Your task to perform on an android device: turn notification dots off Image 0: 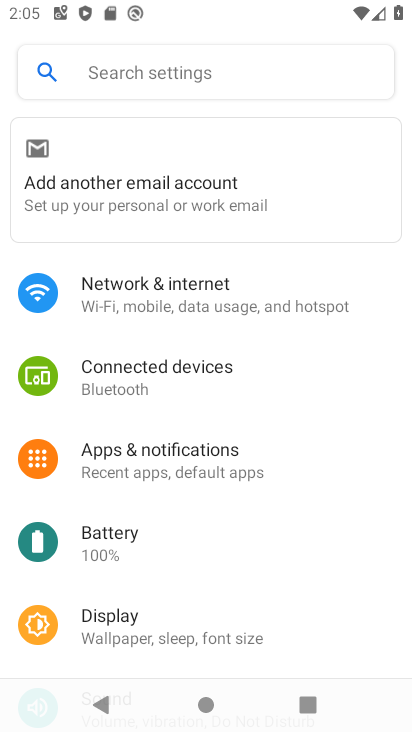
Step 0: press home button
Your task to perform on an android device: turn notification dots off Image 1: 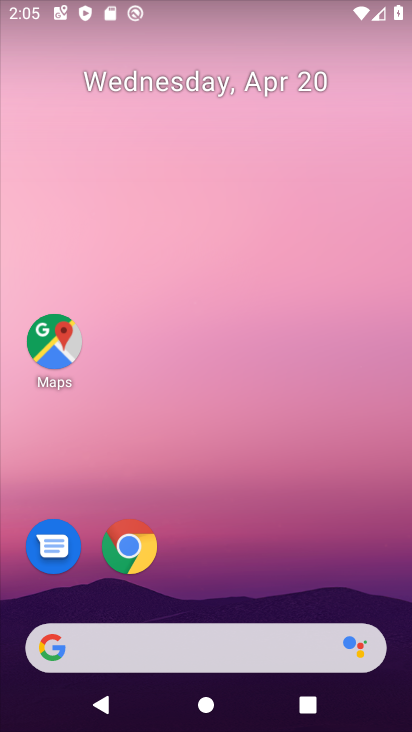
Step 1: drag from (265, 660) to (282, 57)
Your task to perform on an android device: turn notification dots off Image 2: 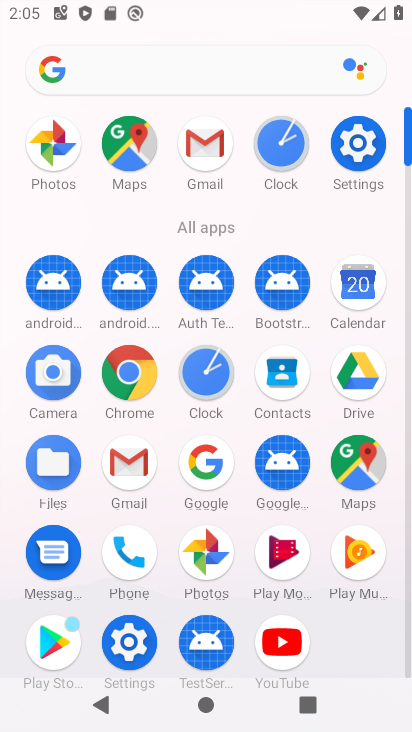
Step 2: click (349, 165)
Your task to perform on an android device: turn notification dots off Image 3: 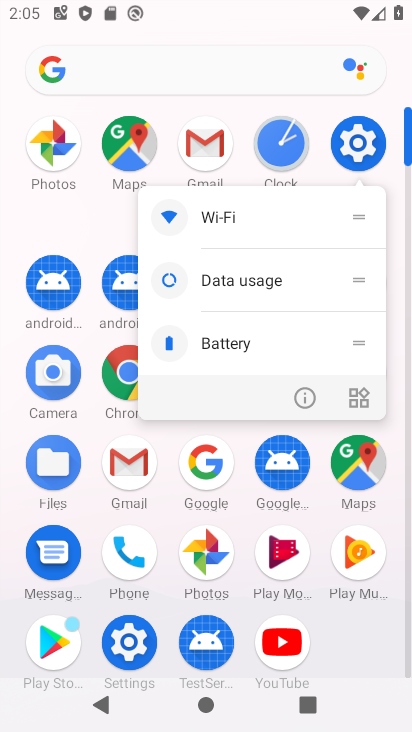
Step 3: click (354, 122)
Your task to perform on an android device: turn notification dots off Image 4: 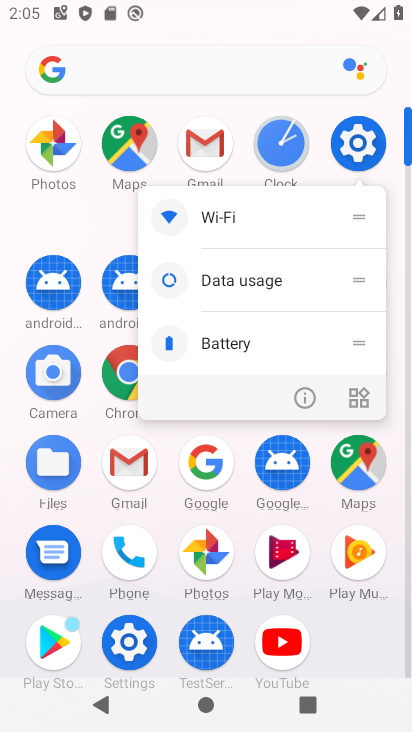
Step 4: click (353, 148)
Your task to perform on an android device: turn notification dots off Image 5: 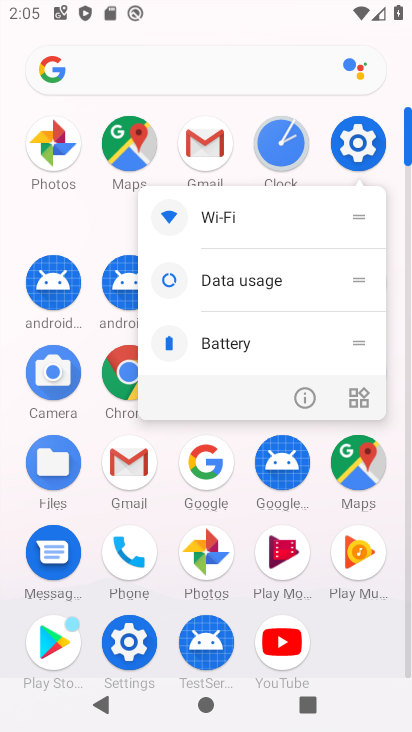
Step 5: click (353, 148)
Your task to perform on an android device: turn notification dots off Image 6: 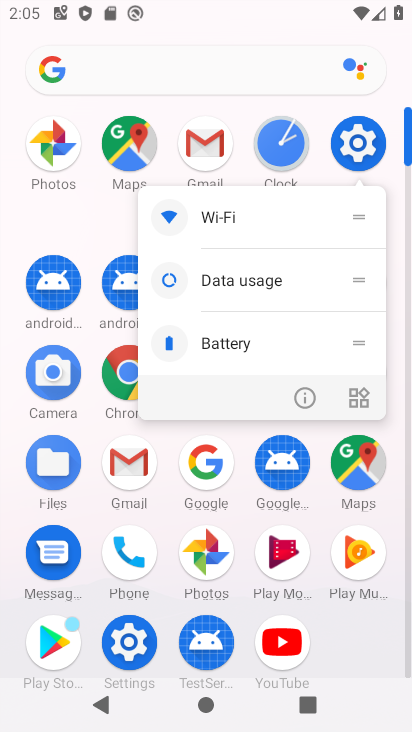
Step 6: click (353, 149)
Your task to perform on an android device: turn notification dots off Image 7: 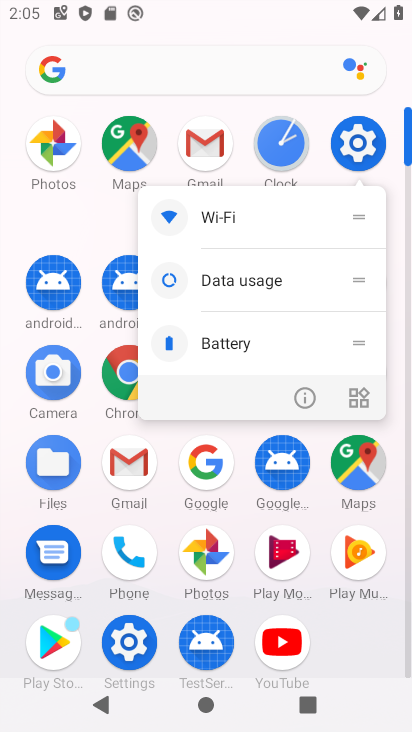
Step 7: click (353, 149)
Your task to perform on an android device: turn notification dots off Image 8: 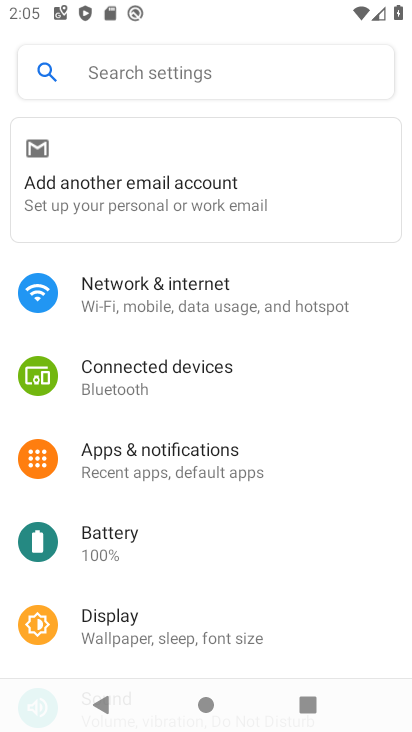
Step 8: drag from (332, 157) to (94, 221)
Your task to perform on an android device: turn notification dots off Image 9: 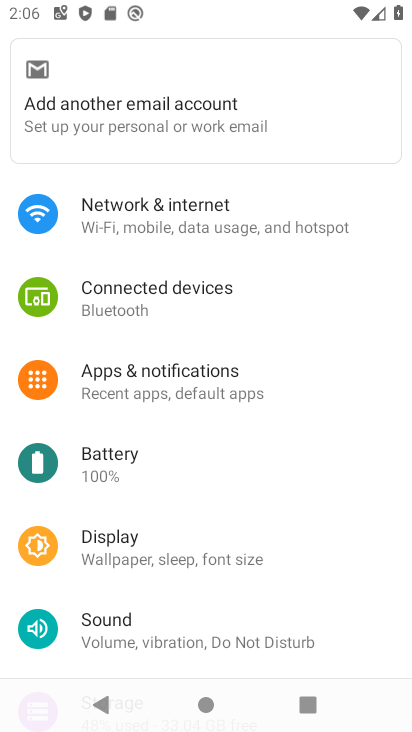
Step 9: drag from (163, 231) to (142, 355)
Your task to perform on an android device: turn notification dots off Image 10: 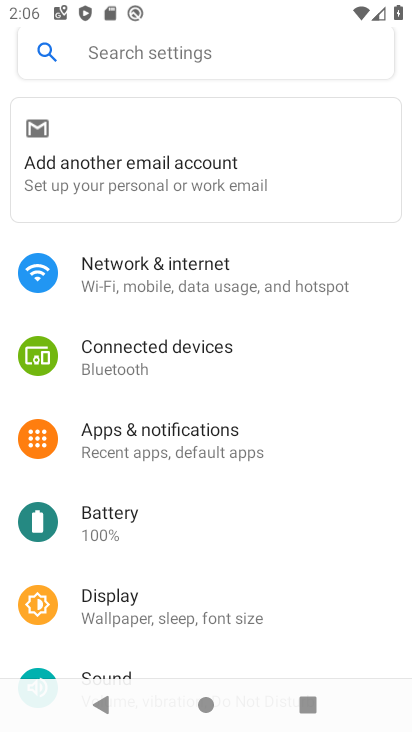
Step 10: click (139, 51)
Your task to perform on an android device: turn notification dots off Image 11: 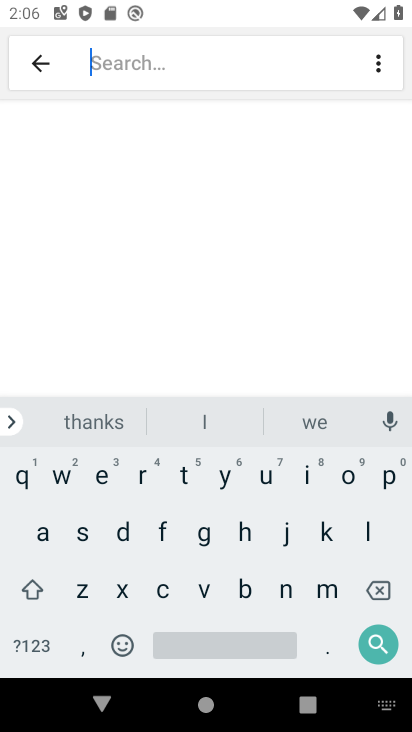
Step 11: click (117, 531)
Your task to perform on an android device: turn notification dots off Image 12: 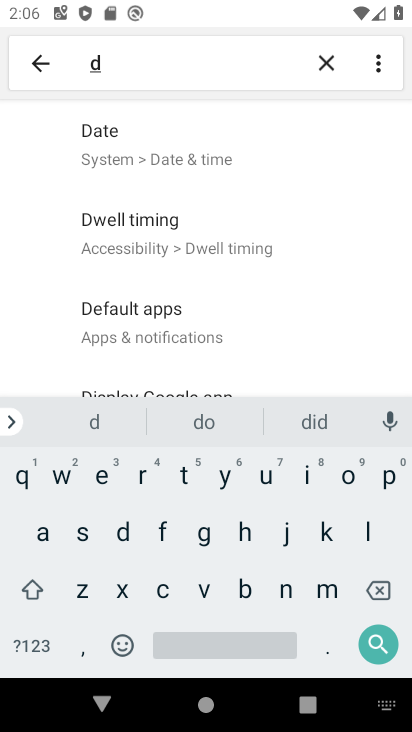
Step 12: click (348, 478)
Your task to perform on an android device: turn notification dots off Image 13: 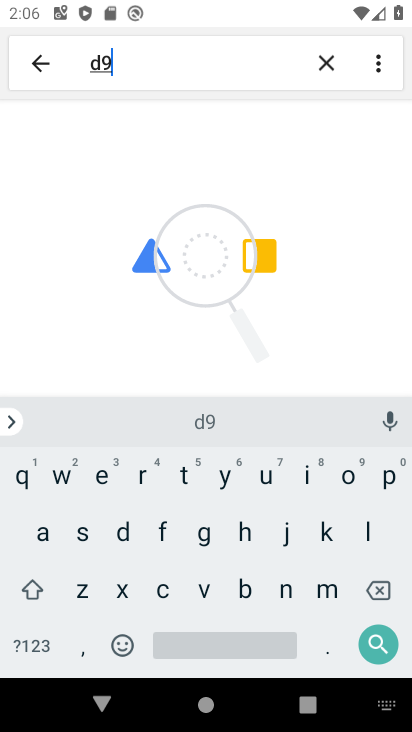
Step 13: click (376, 581)
Your task to perform on an android device: turn notification dots off Image 14: 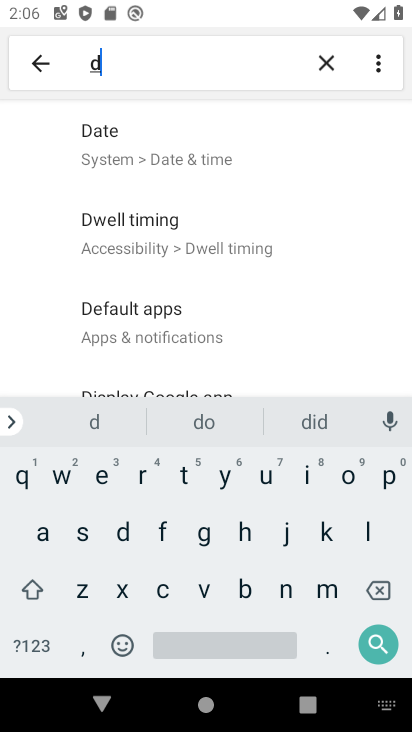
Step 14: click (347, 484)
Your task to perform on an android device: turn notification dots off Image 15: 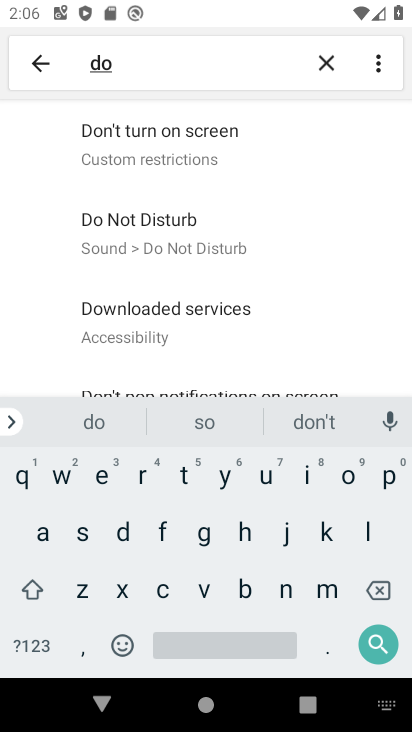
Step 15: click (187, 471)
Your task to perform on an android device: turn notification dots off Image 16: 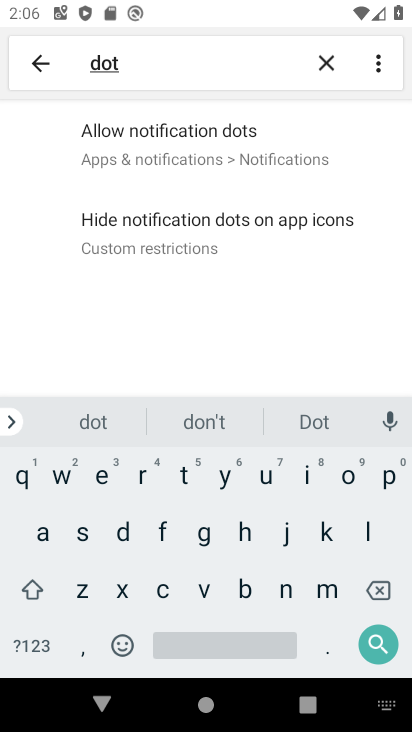
Step 16: click (215, 142)
Your task to perform on an android device: turn notification dots off Image 17: 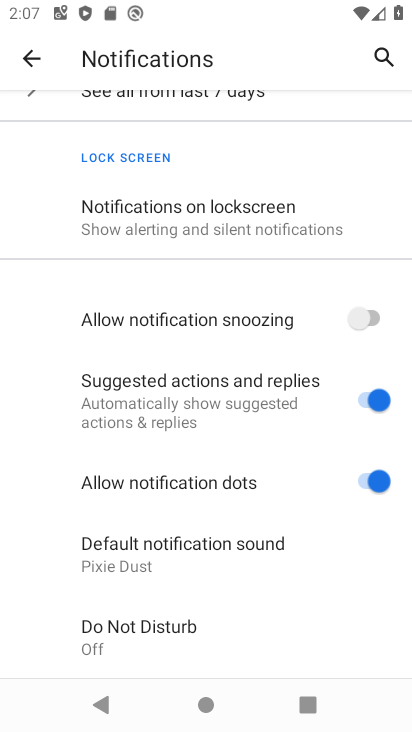
Step 17: click (209, 483)
Your task to perform on an android device: turn notification dots off Image 18: 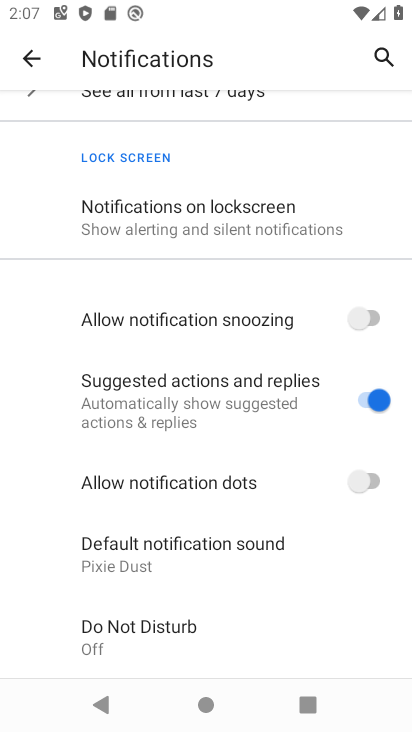
Step 18: task complete